Your task to perform on an android device: empty trash in the gmail app Image 0: 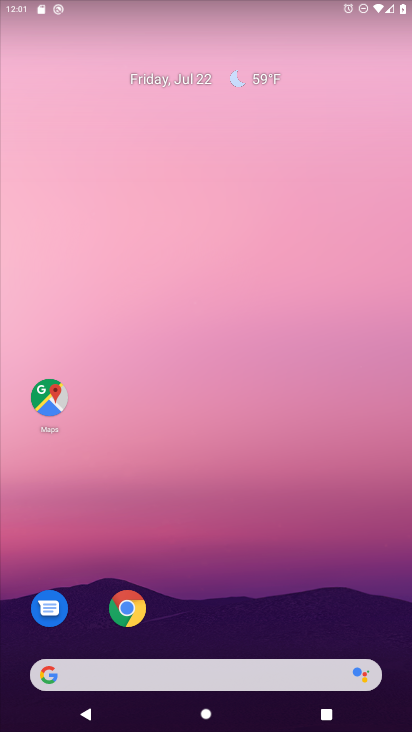
Step 0: drag from (362, 606) to (239, 38)
Your task to perform on an android device: empty trash in the gmail app Image 1: 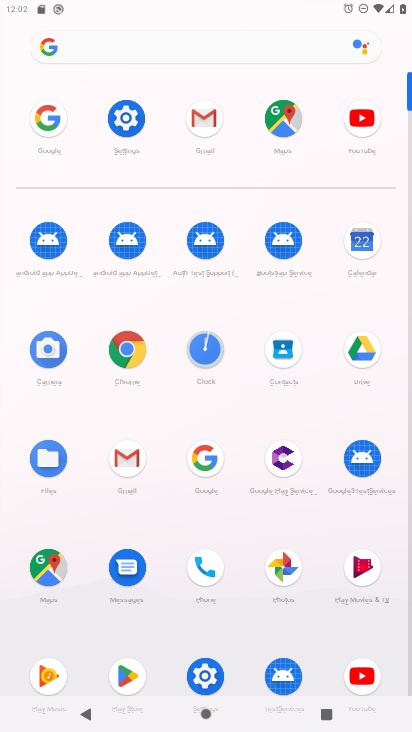
Step 1: click (128, 461)
Your task to perform on an android device: empty trash in the gmail app Image 2: 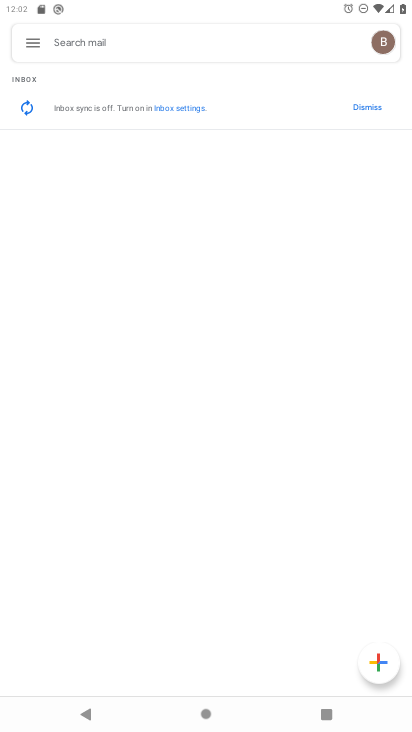
Step 2: click (29, 30)
Your task to perform on an android device: empty trash in the gmail app Image 3: 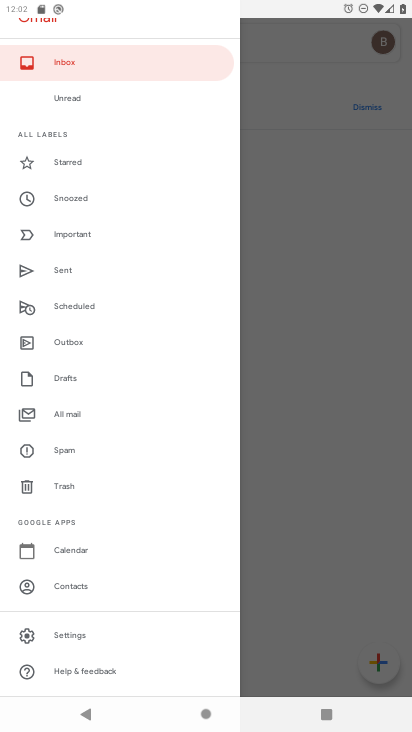
Step 3: click (60, 482)
Your task to perform on an android device: empty trash in the gmail app Image 4: 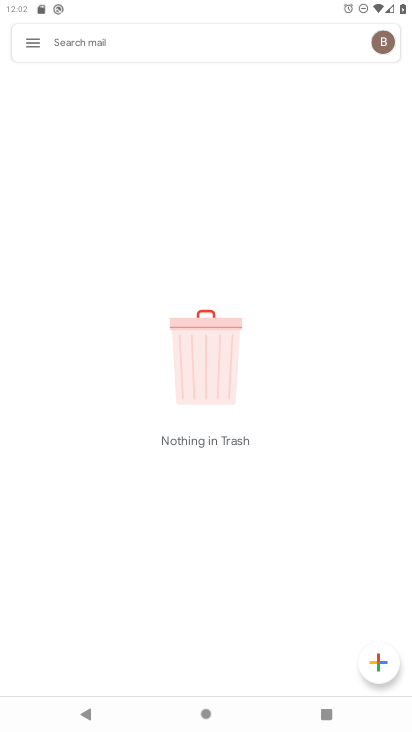
Step 4: task complete